Your task to perform on an android device: change the upload size in google photos Image 0: 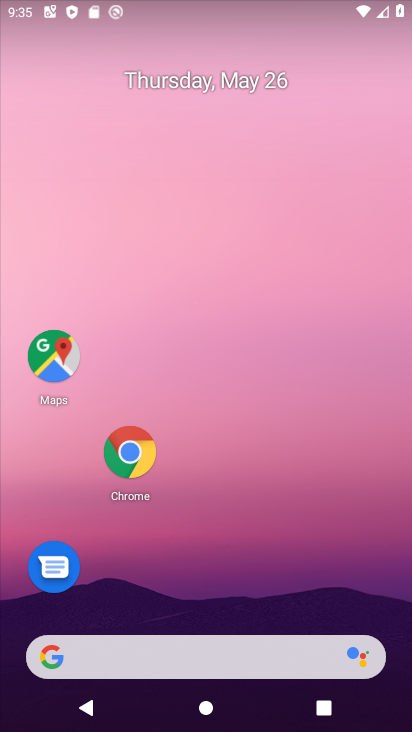
Step 0: press home button
Your task to perform on an android device: change the upload size in google photos Image 1: 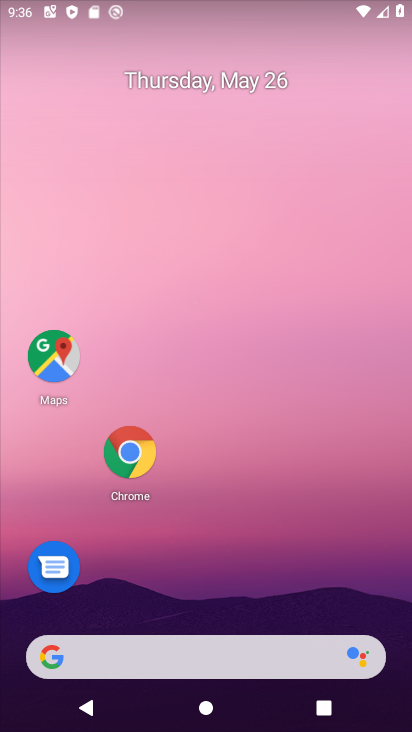
Step 1: drag from (193, 655) to (341, 181)
Your task to perform on an android device: change the upload size in google photos Image 2: 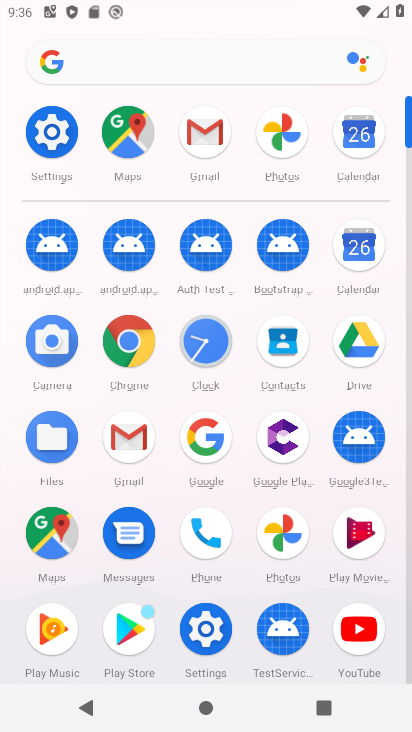
Step 2: click (285, 536)
Your task to perform on an android device: change the upload size in google photos Image 3: 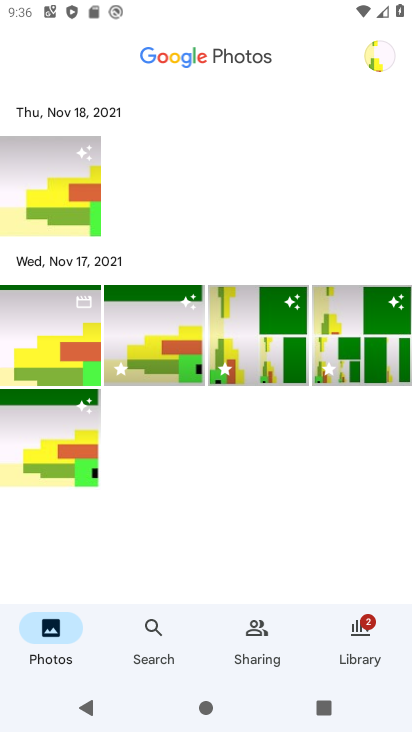
Step 3: click (382, 55)
Your task to perform on an android device: change the upload size in google photos Image 4: 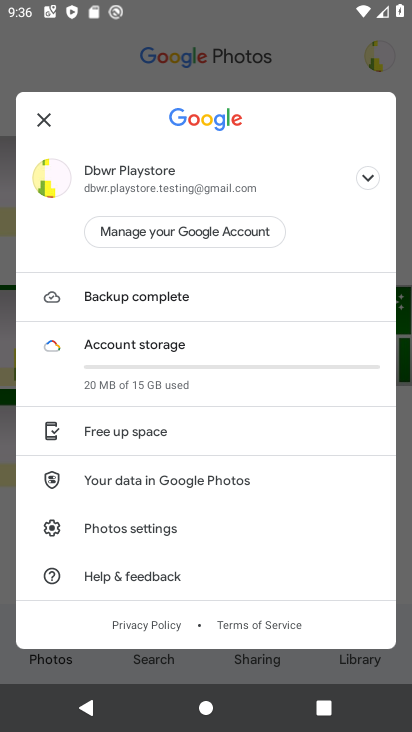
Step 4: click (149, 527)
Your task to perform on an android device: change the upload size in google photos Image 5: 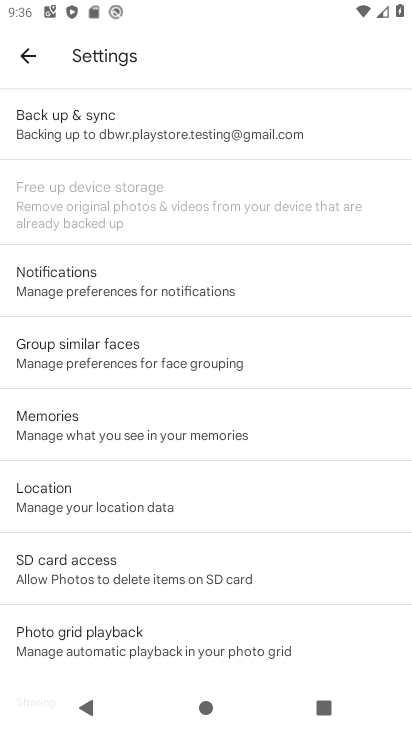
Step 5: click (176, 117)
Your task to perform on an android device: change the upload size in google photos Image 6: 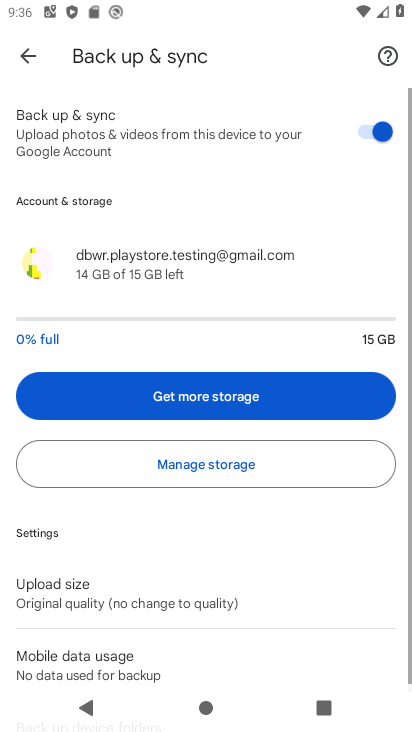
Step 6: drag from (206, 584) to (304, 235)
Your task to perform on an android device: change the upload size in google photos Image 7: 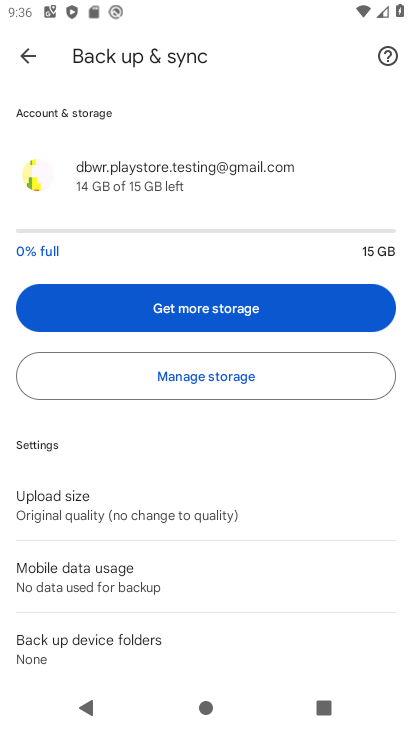
Step 7: click (76, 510)
Your task to perform on an android device: change the upload size in google photos Image 8: 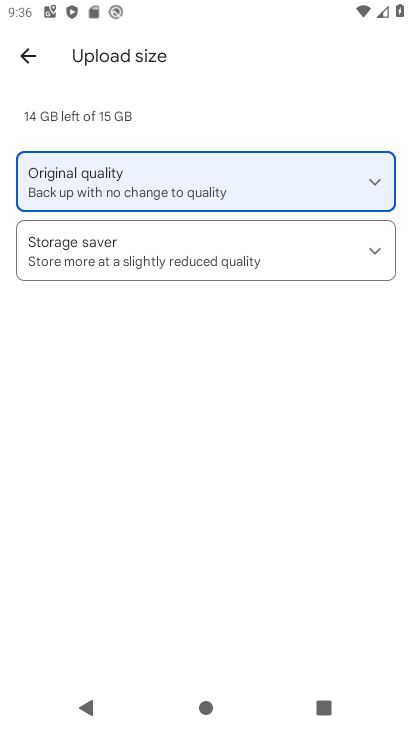
Step 8: click (382, 246)
Your task to perform on an android device: change the upload size in google photos Image 9: 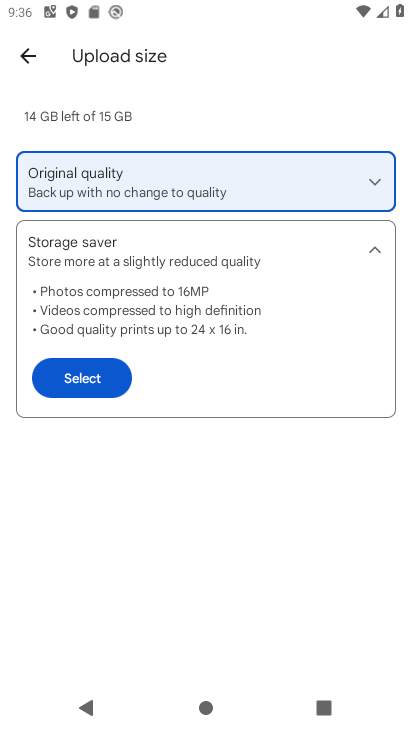
Step 9: click (81, 386)
Your task to perform on an android device: change the upload size in google photos Image 10: 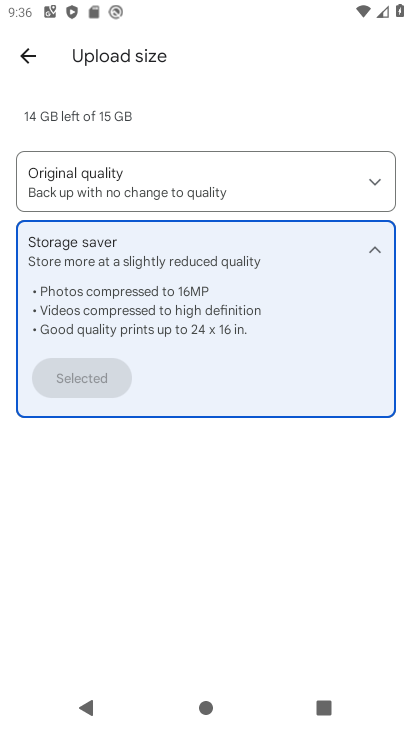
Step 10: task complete